Your task to perform on an android device: find snoozed emails in the gmail app Image 0: 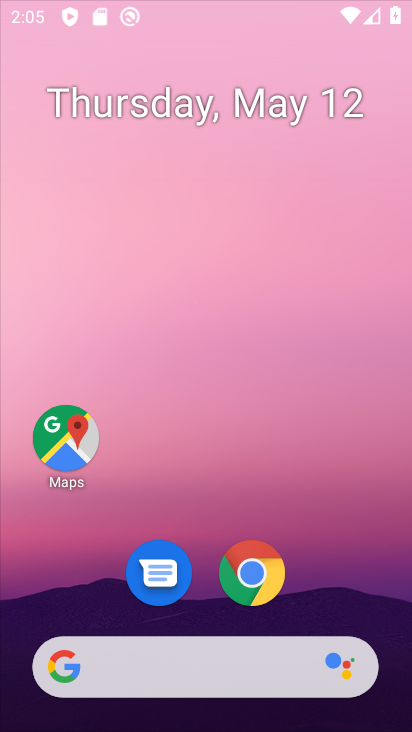
Step 0: click (217, 365)
Your task to perform on an android device: find snoozed emails in the gmail app Image 1: 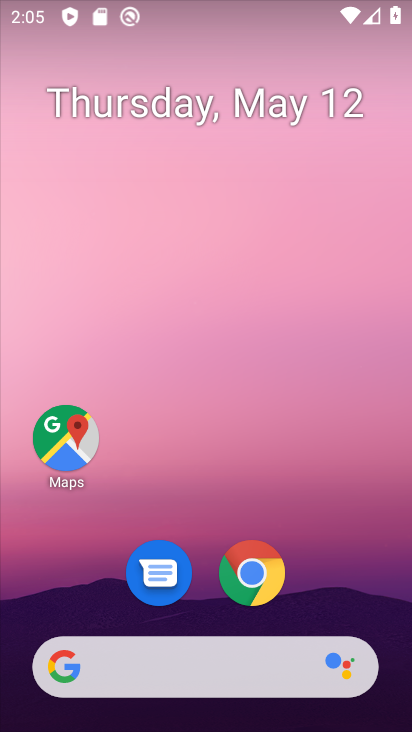
Step 1: drag from (201, 605) to (239, 146)
Your task to perform on an android device: find snoozed emails in the gmail app Image 2: 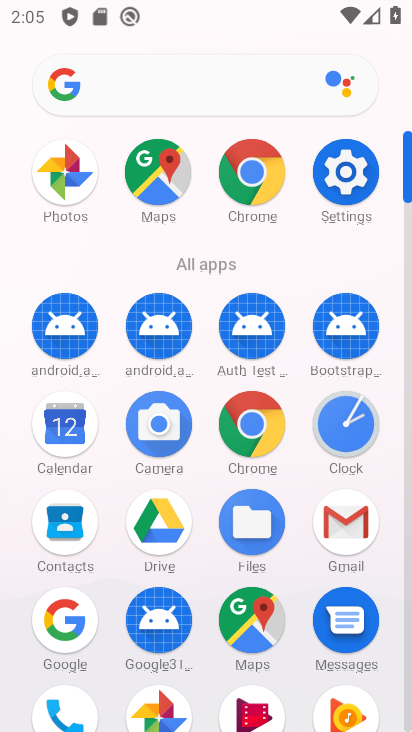
Step 2: drag from (200, 673) to (197, 337)
Your task to perform on an android device: find snoozed emails in the gmail app Image 3: 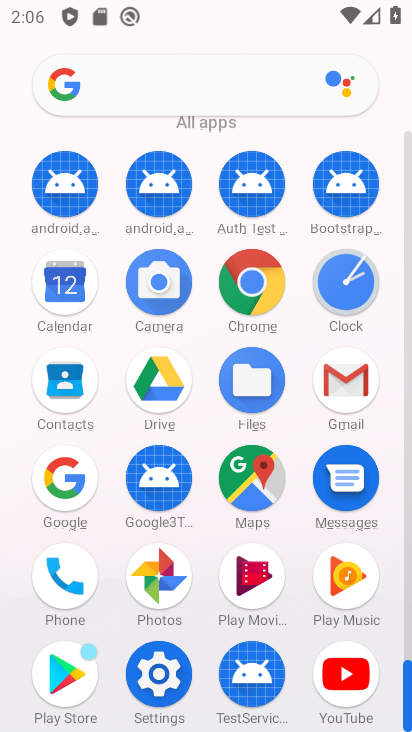
Step 3: click (343, 291)
Your task to perform on an android device: find snoozed emails in the gmail app Image 4: 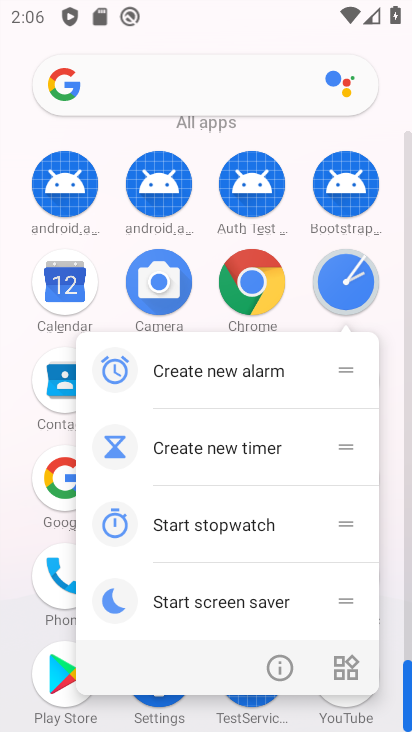
Step 4: click (8, 373)
Your task to perform on an android device: find snoozed emails in the gmail app Image 5: 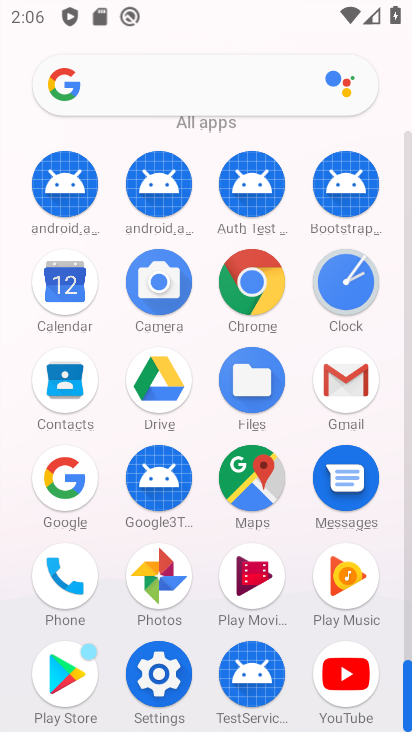
Step 5: click (337, 384)
Your task to perform on an android device: find snoozed emails in the gmail app Image 6: 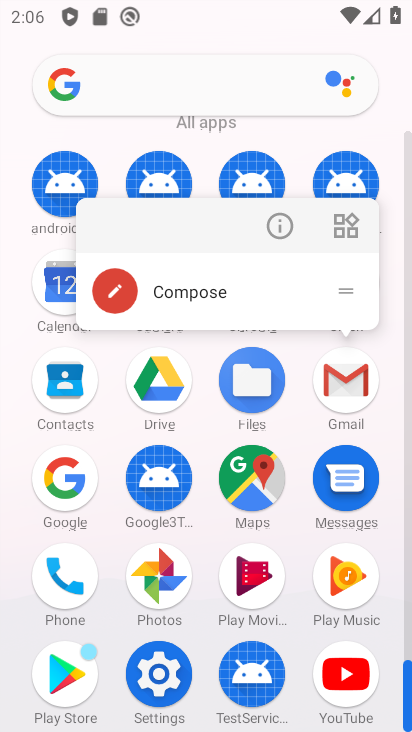
Step 6: click (274, 218)
Your task to perform on an android device: find snoozed emails in the gmail app Image 7: 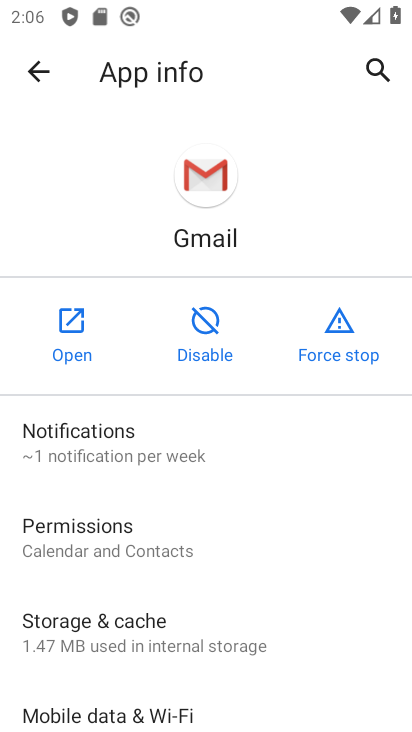
Step 7: click (71, 307)
Your task to perform on an android device: find snoozed emails in the gmail app Image 8: 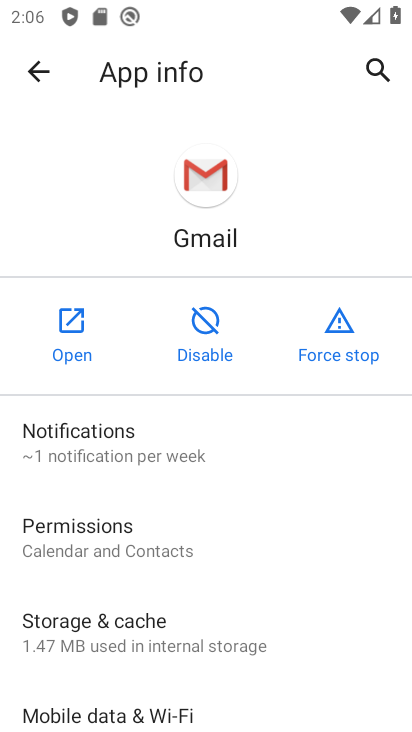
Step 8: click (71, 307)
Your task to perform on an android device: find snoozed emails in the gmail app Image 9: 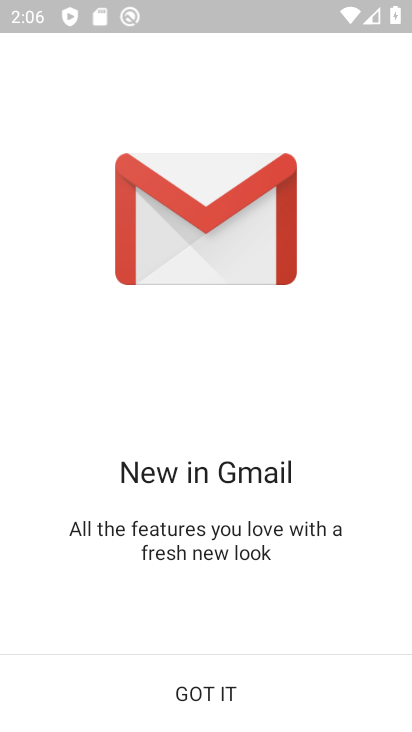
Step 9: click (176, 713)
Your task to perform on an android device: find snoozed emails in the gmail app Image 10: 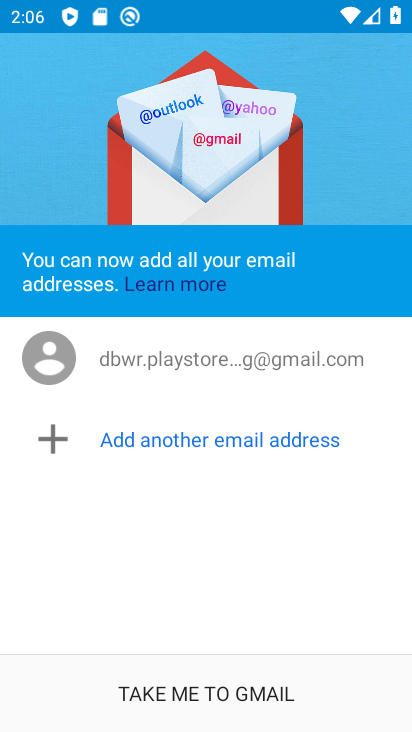
Step 10: click (158, 694)
Your task to perform on an android device: find snoozed emails in the gmail app Image 11: 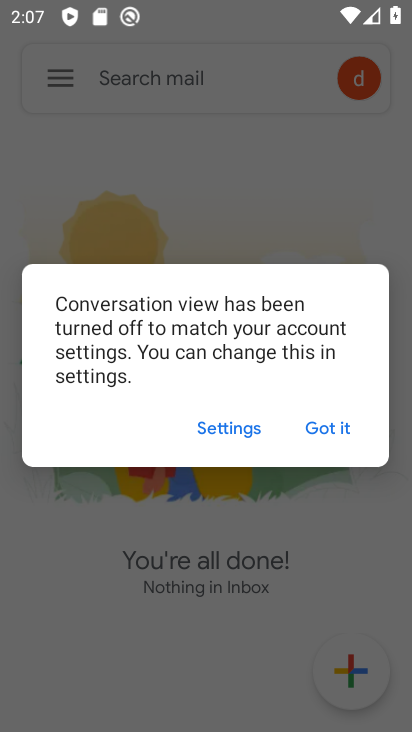
Step 11: click (325, 425)
Your task to perform on an android device: find snoozed emails in the gmail app Image 12: 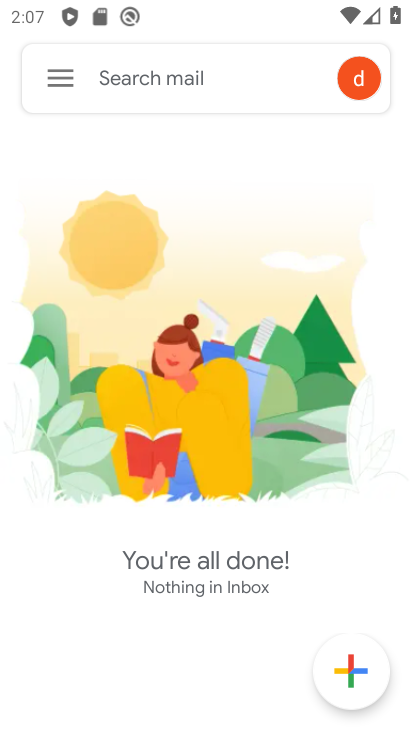
Step 12: drag from (239, 576) to (47, 81)
Your task to perform on an android device: find snoozed emails in the gmail app Image 13: 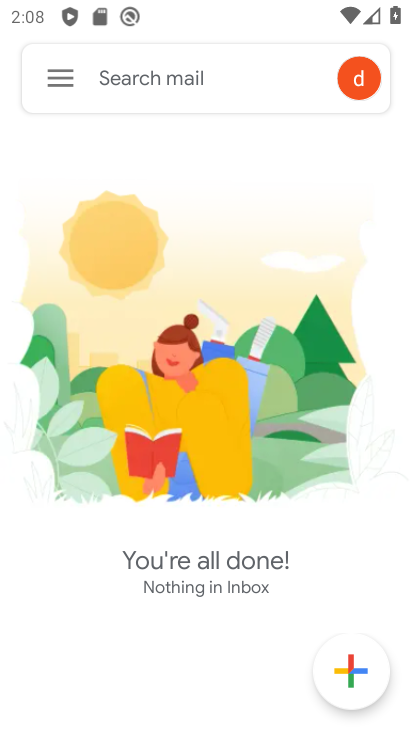
Step 13: click (76, 69)
Your task to perform on an android device: find snoozed emails in the gmail app Image 14: 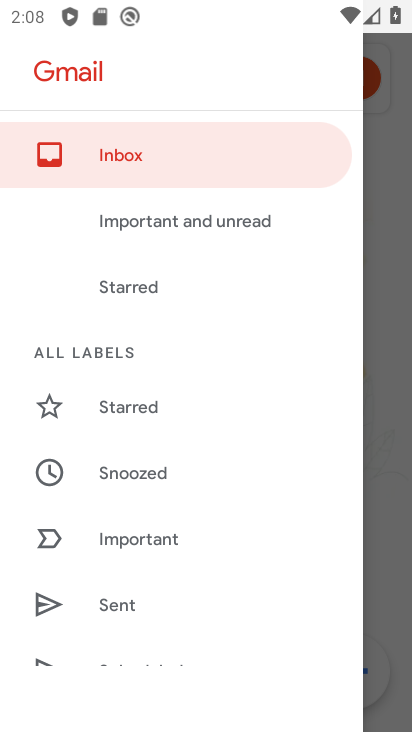
Step 14: click (130, 476)
Your task to perform on an android device: find snoozed emails in the gmail app Image 15: 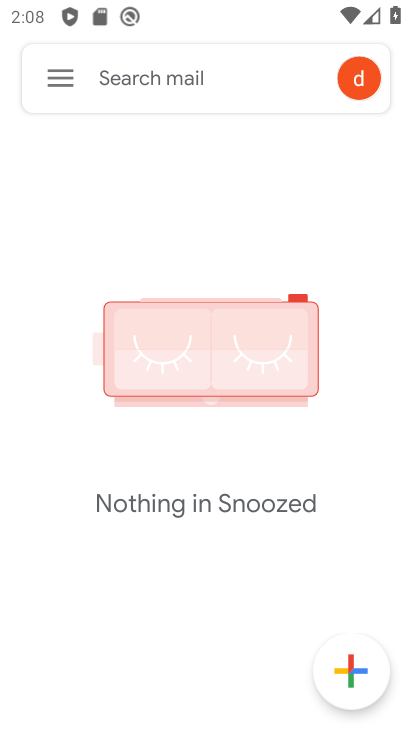
Step 15: task complete